Your task to perform on an android device: check out phone information Image 0: 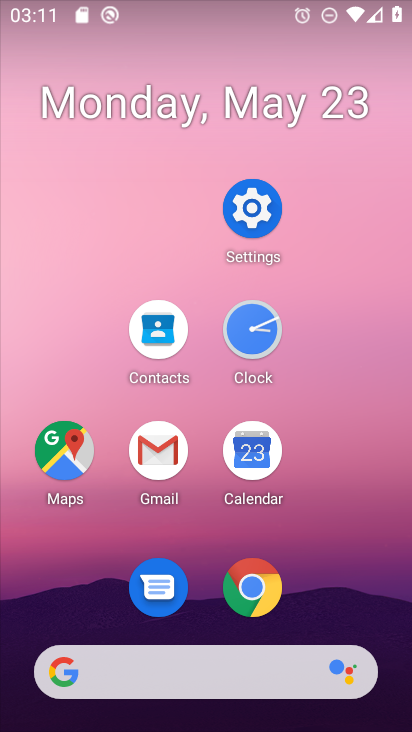
Step 0: drag from (367, 591) to (359, 155)
Your task to perform on an android device: check out phone information Image 1: 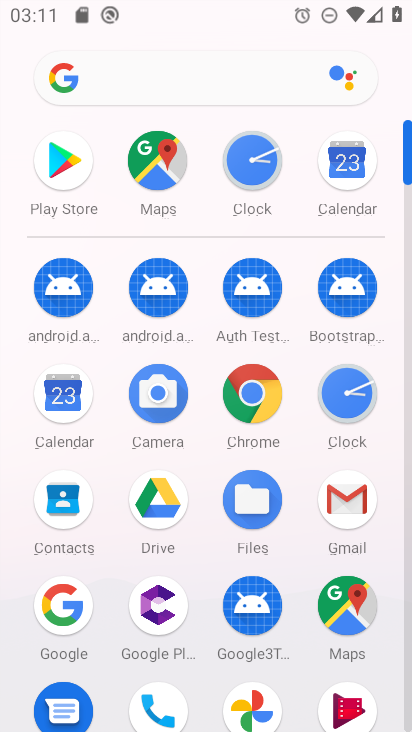
Step 1: click (411, 258)
Your task to perform on an android device: check out phone information Image 2: 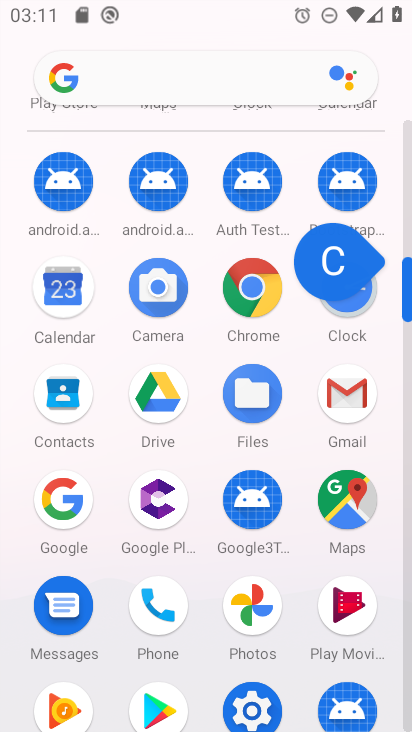
Step 2: click (411, 258)
Your task to perform on an android device: check out phone information Image 3: 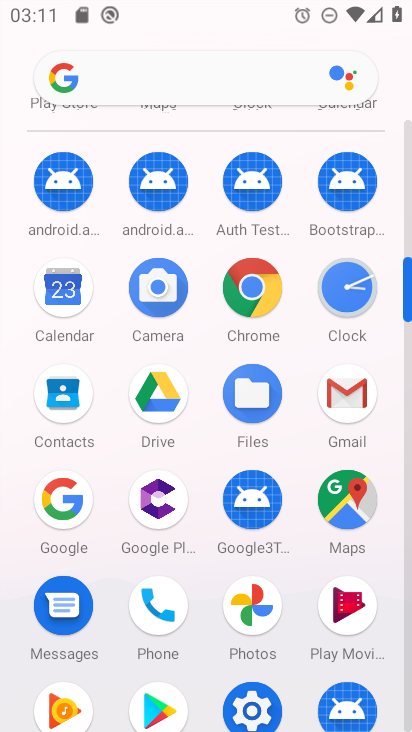
Step 3: click (262, 700)
Your task to perform on an android device: check out phone information Image 4: 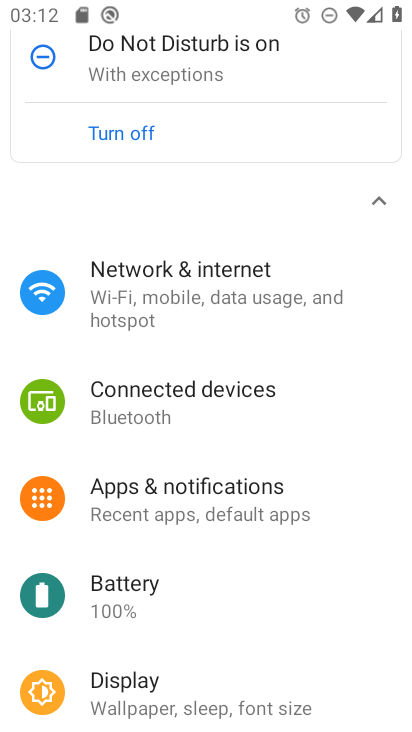
Step 4: drag from (212, 598) to (248, 111)
Your task to perform on an android device: check out phone information Image 5: 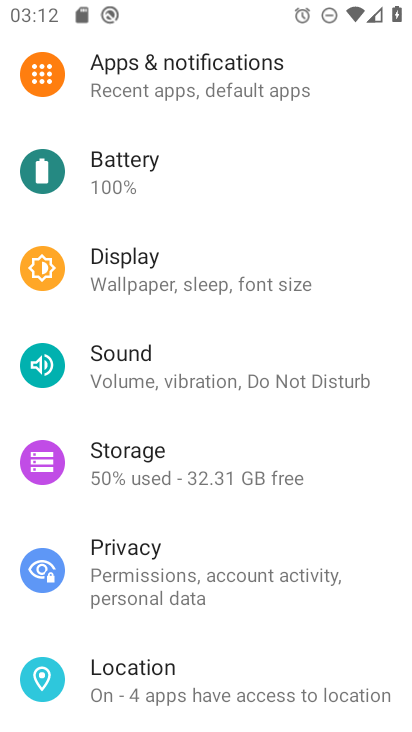
Step 5: drag from (293, 627) to (275, 179)
Your task to perform on an android device: check out phone information Image 6: 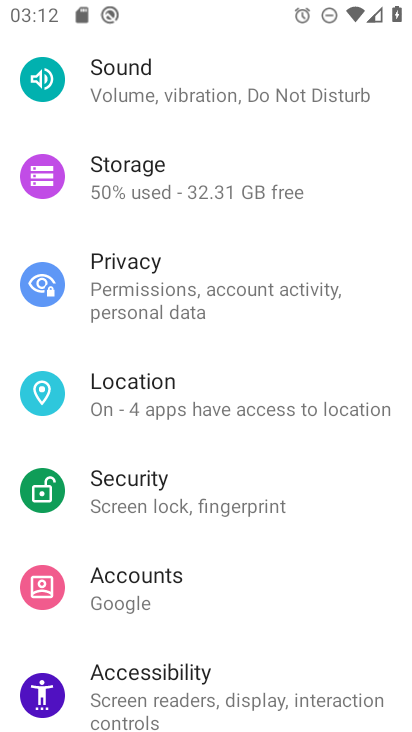
Step 6: drag from (246, 608) to (233, 248)
Your task to perform on an android device: check out phone information Image 7: 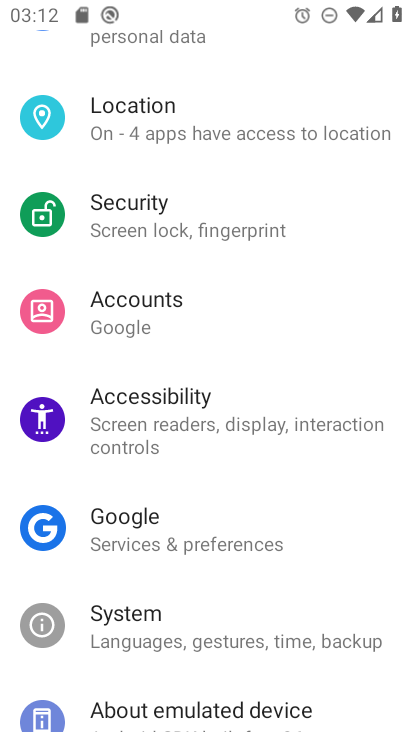
Step 7: click (256, 645)
Your task to perform on an android device: check out phone information Image 8: 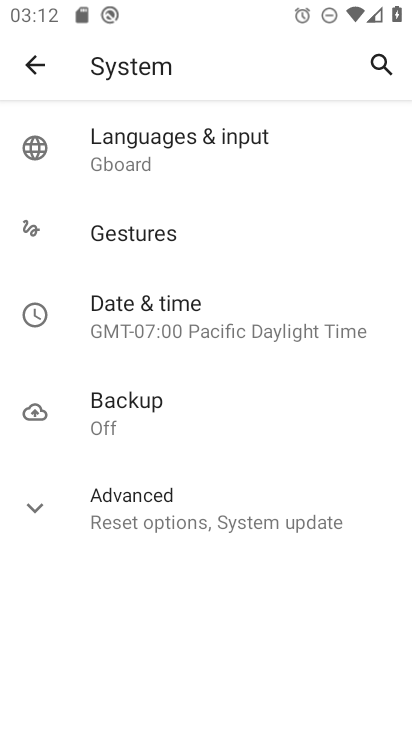
Step 8: task complete